Your task to perform on an android device: find photos in the google photos app Image 0: 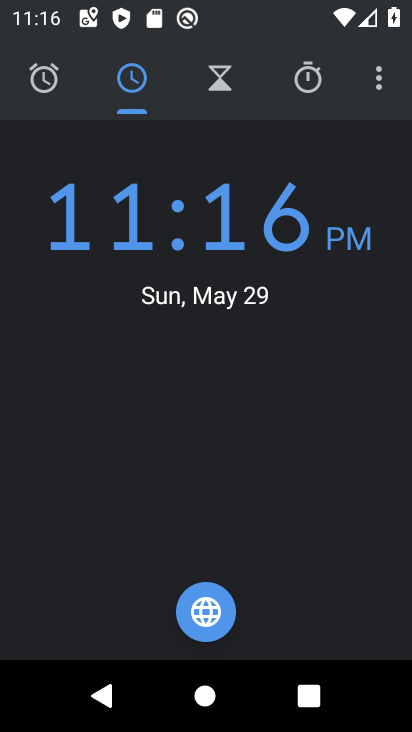
Step 0: press home button
Your task to perform on an android device: find photos in the google photos app Image 1: 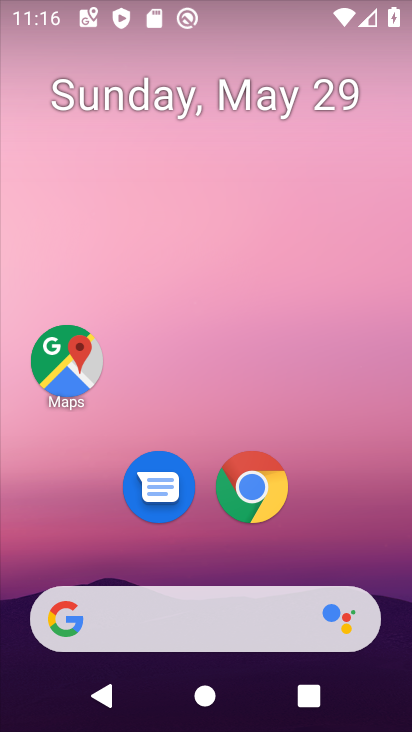
Step 1: drag from (385, 542) to (387, 96)
Your task to perform on an android device: find photos in the google photos app Image 2: 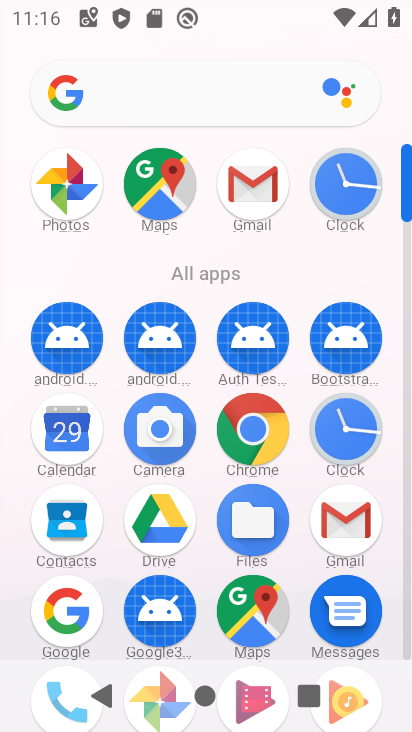
Step 2: drag from (388, 569) to (389, 288)
Your task to perform on an android device: find photos in the google photos app Image 3: 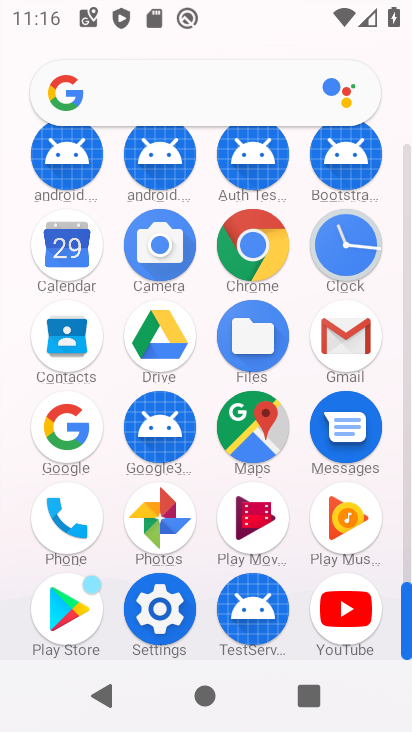
Step 3: click (174, 511)
Your task to perform on an android device: find photos in the google photos app Image 4: 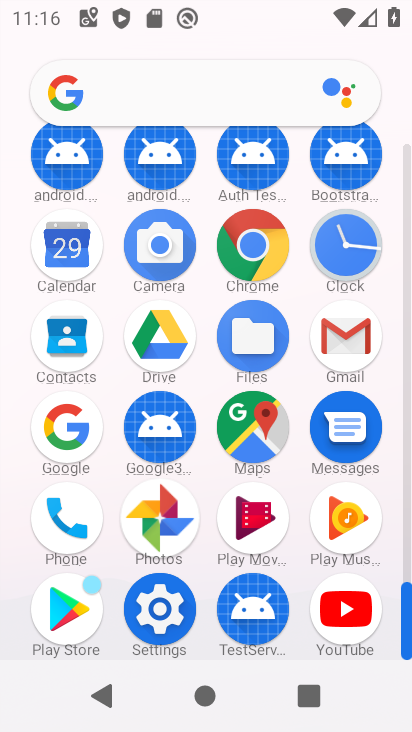
Step 4: click (174, 511)
Your task to perform on an android device: find photos in the google photos app Image 5: 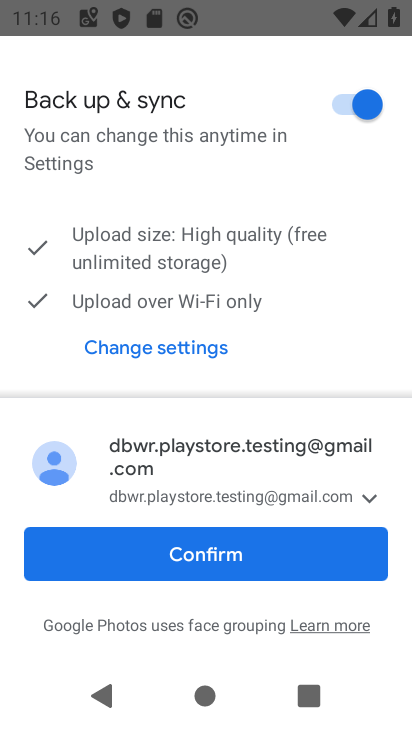
Step 5: click (316, 562)
Your task to perform on an android device: find photos in the google photos app Image 6: 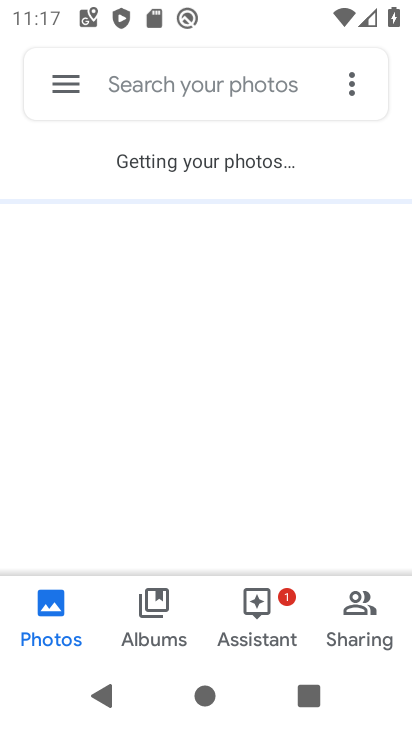
Step 6: task complete